Your task to perform on an android device: Go to Google maps Image 0: 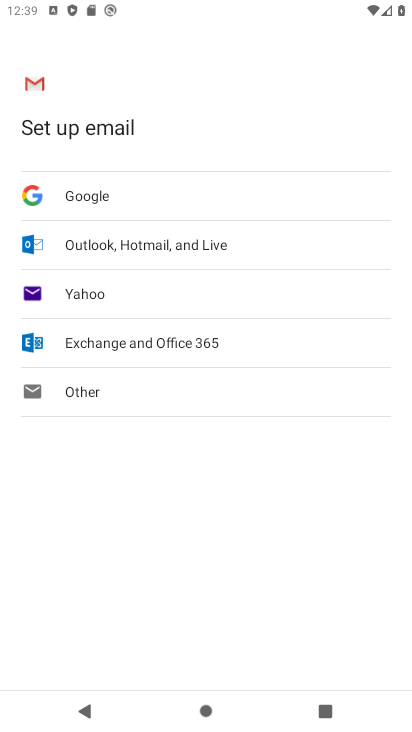
Step 0: press home button
Your task to perform on an android device: Go to Google maps Image 1: 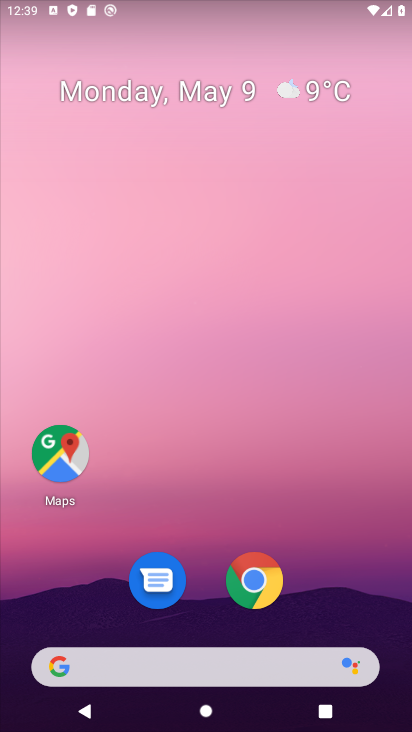
Step 1: click (68, 456)
Your task to perform on an android device: Go to Google maps Image 2: 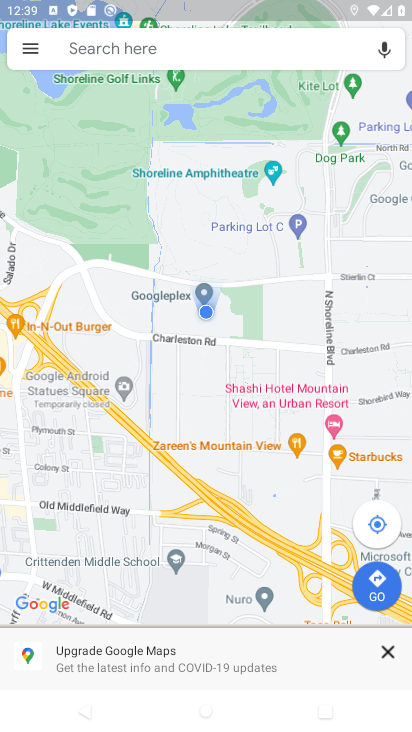
Step 2: task complete